Your task to perform on an android device: turn off airplane mode Image 0: 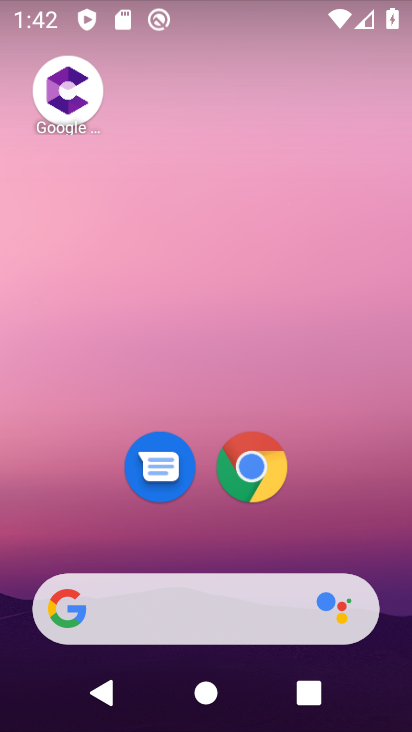
Step 0: press home button
Your task to perform on an android device: turn off airplane mode Image 1: 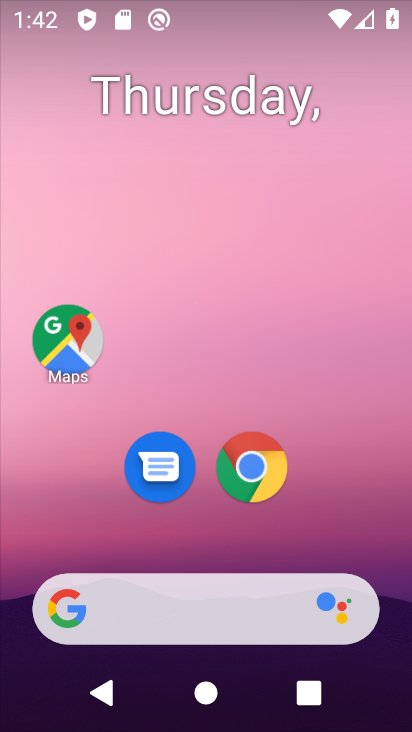
Step 1: drag from (369, 541) to (292, 94)
Your task to perform on an android device: turn off airplane mode Image 2: 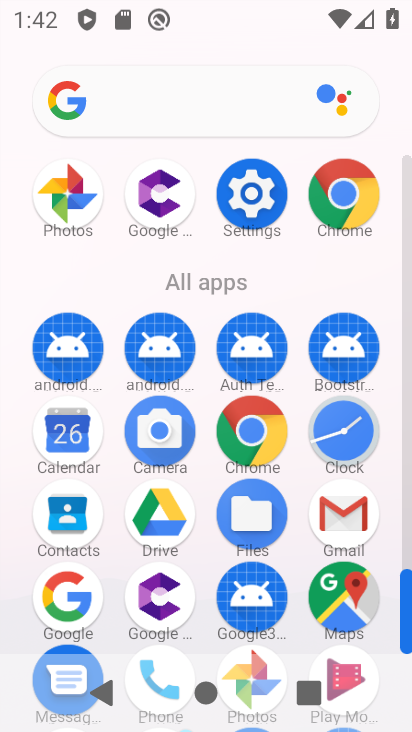
Step 2: drag from (212, 566) to (205, 264)
Your task to perform on an android device: turn off airplane mode Image 3: 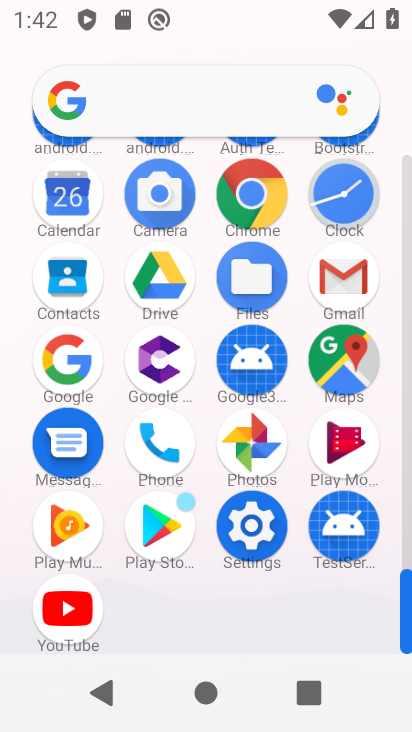
Step 3: click (244, 555)
Your task to perform on an android device: turn off airplane mode Image 4: 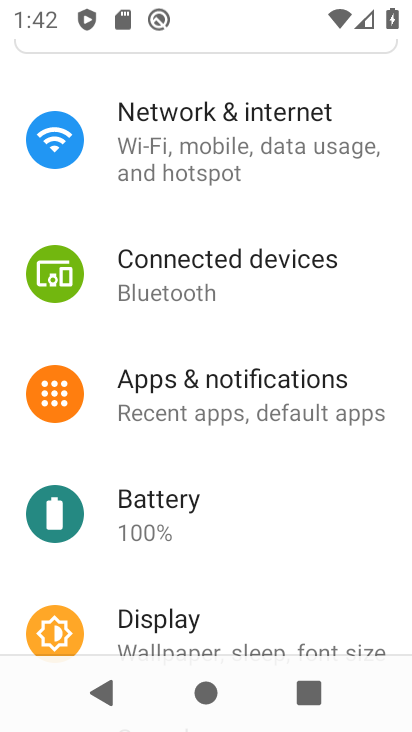
Step 4: drag from (262, 223) to (239, 570)
Your task to perform on an android device: turn off airplane mode Image 5: 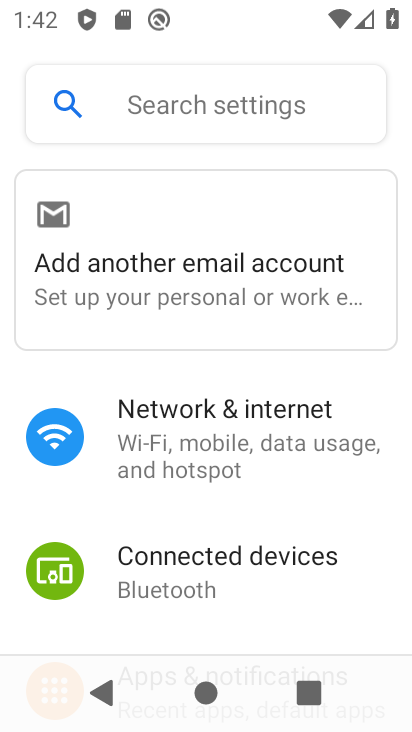
Step 5: drag from (216, 605) to (217, 239)
Your task to perform on an android device: turn off airplane mode Image 6: 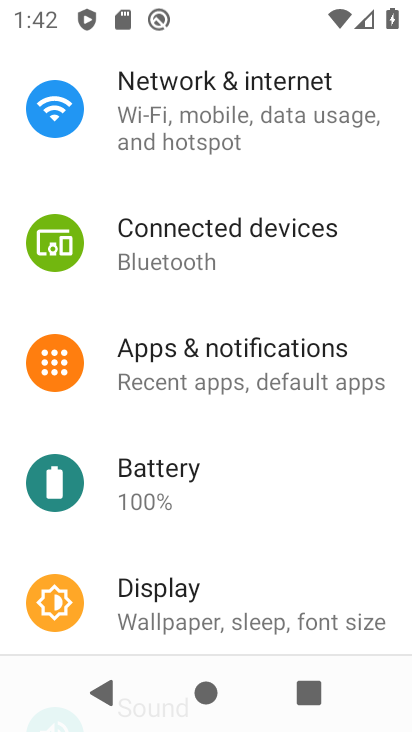
Step 6: drag from (197, 532) to (264, 196)
Your task to perform on an android device: turn off airplane mode Image 7: 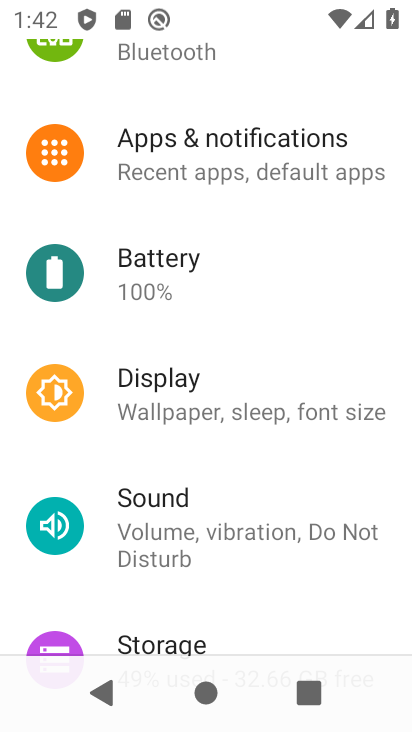
Step 7: drag from (256, 161) to (219, 647)
Your task to perform on an android device: turn off airplane mode Image 8: 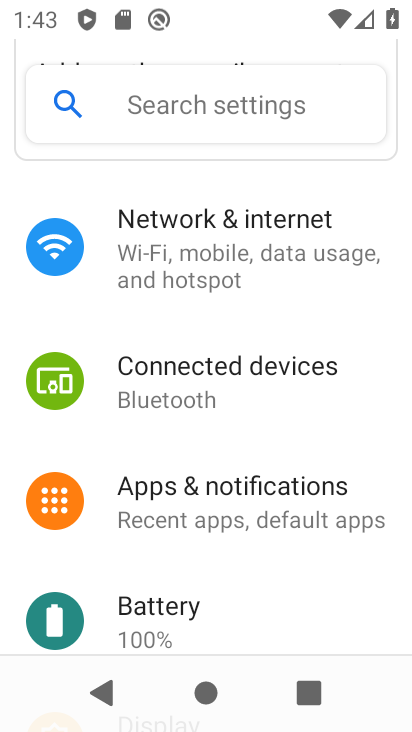
Step 8: click (238, 266)
Your task to perform on an android device: turn off airplane mode Image 9: 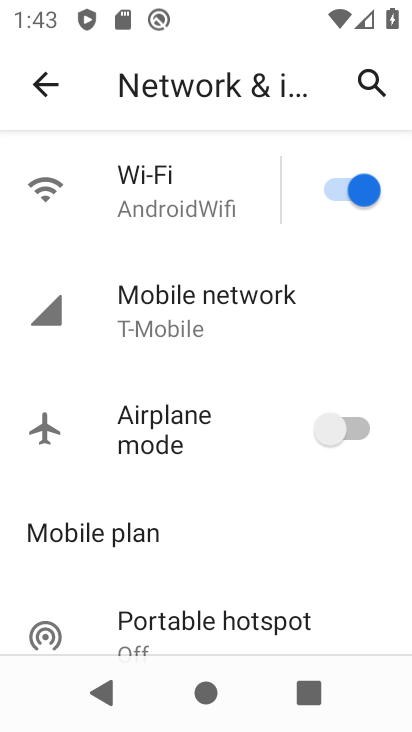
Step 9: task complete